Your task to perform on an android device: Go to Android settings Image 0: 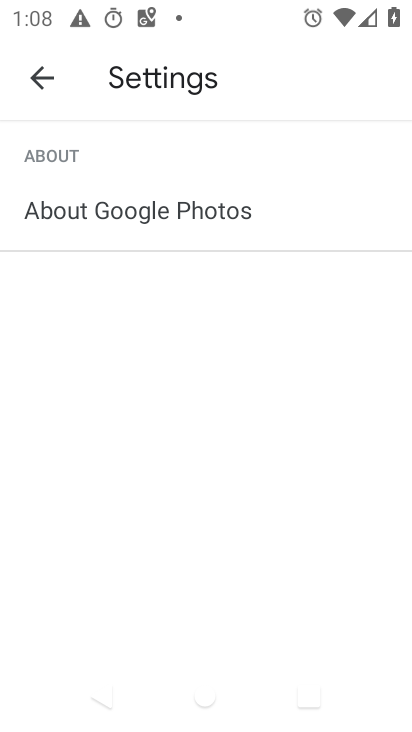
Step 0: press back button
Your task to perform on an android device: Go to Android settings Image 1: 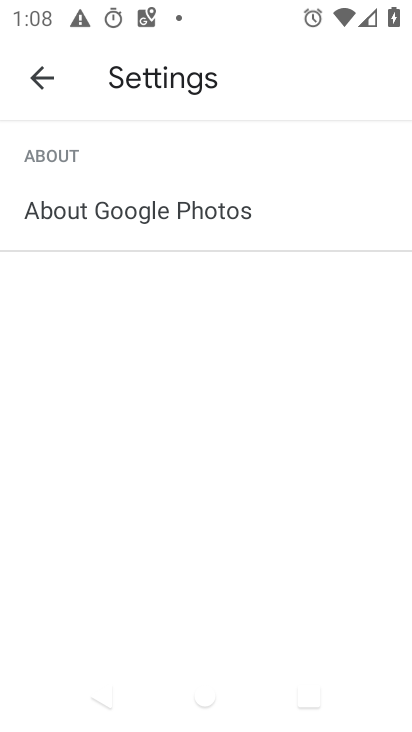
Step 1: press back button
Your task to perform on an android device: Go to Android settings Image 2: 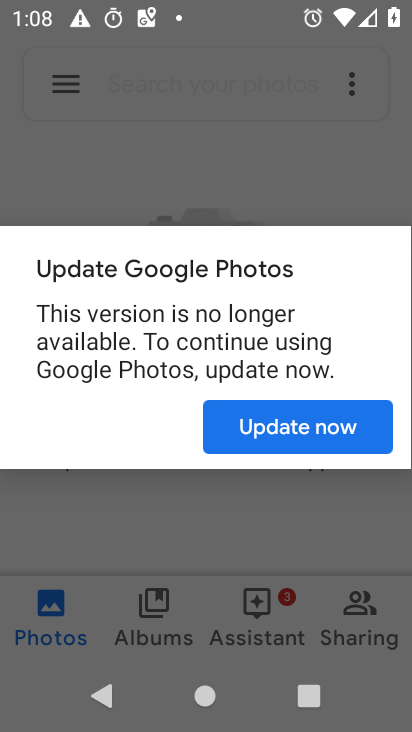
Step 2: press home button
Your task to perform on an android device: Go to Android settings Image 3: 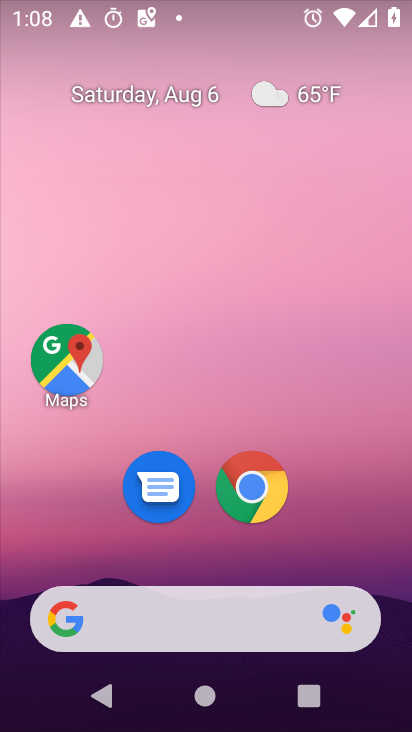
Step 3: drag from (162, 618) to (194, 60)
Your task to perform on an android device: Go to Android settings Image 4: 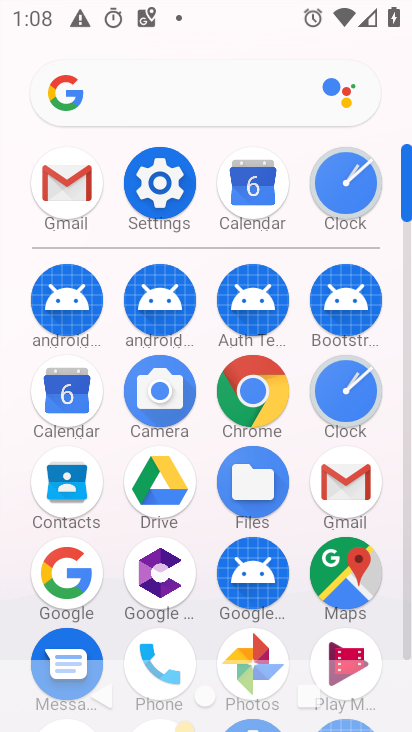
Step 4: click (154, 190)
Your task to perform on an android device: Go to Android settings Image 5: 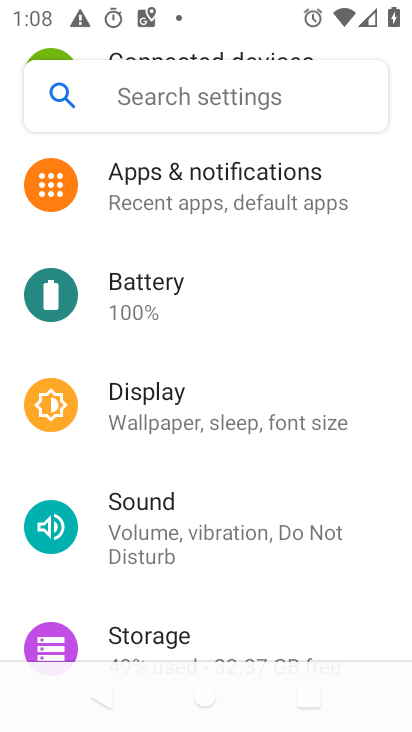
Step 5: drag from (184, 643) to (276, 67)
Your task to perform on an android device: Go to Android settings Image 6: 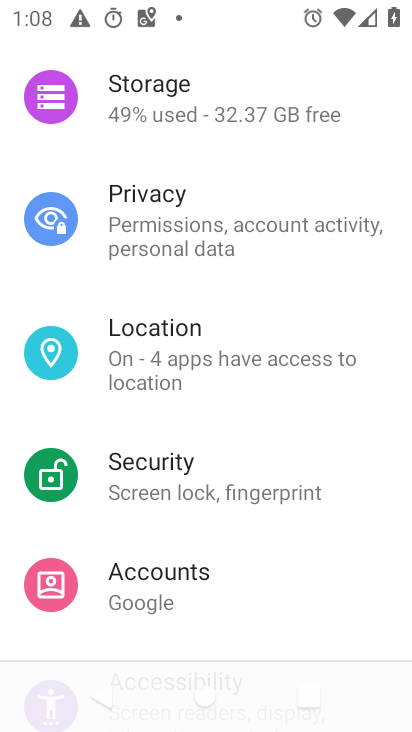
Step 6: drag from (152, 579) to (300, 12)
Your task to perform on an android device: Go to Android settings Image 7: 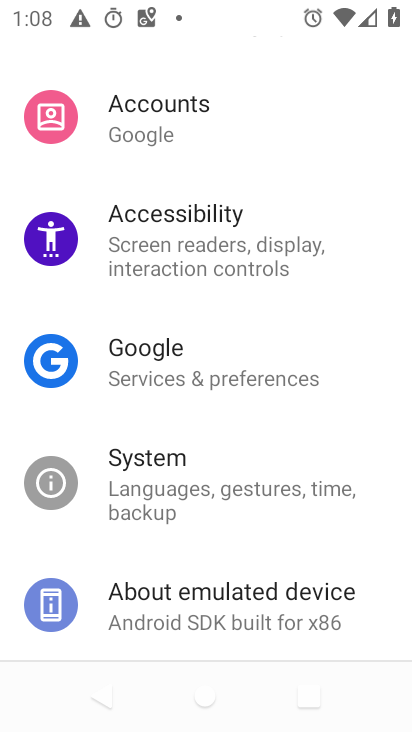
Step 7: click (183, 621)
Your task to perform on an android device: Go to Android settings Image 8: 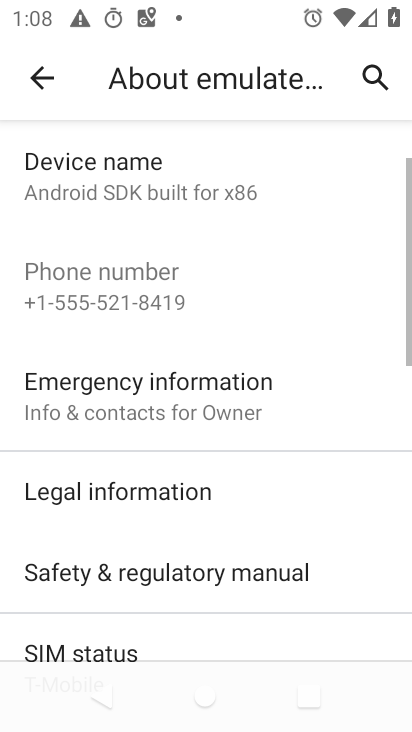
Step 8: task complete